Your task to perform on an android device: When is my next meeting? Image 0: 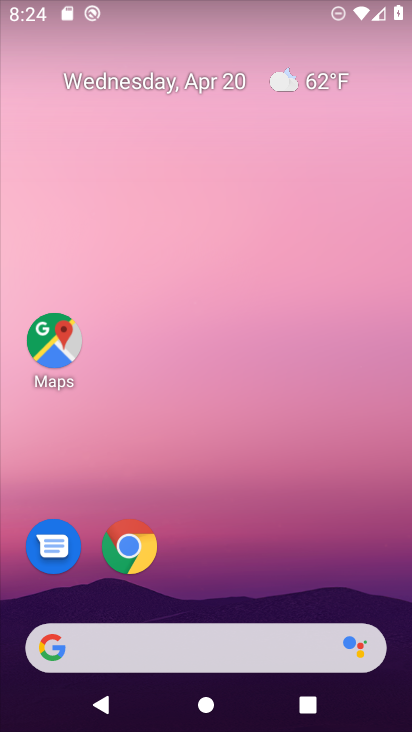
Step 0: drag from (264, 547) to (303, 141)
Your task to perform on an android device: When is my next meeting? Image 1: 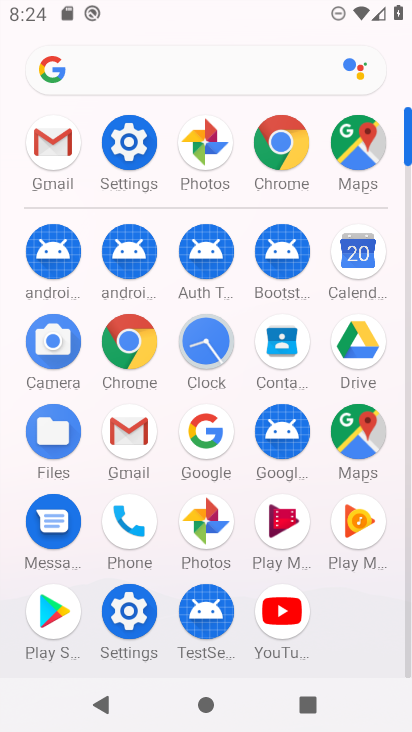
Step 1: click (356, 247)
Your task to perform on an android device: When is my next meeting? Image 2: 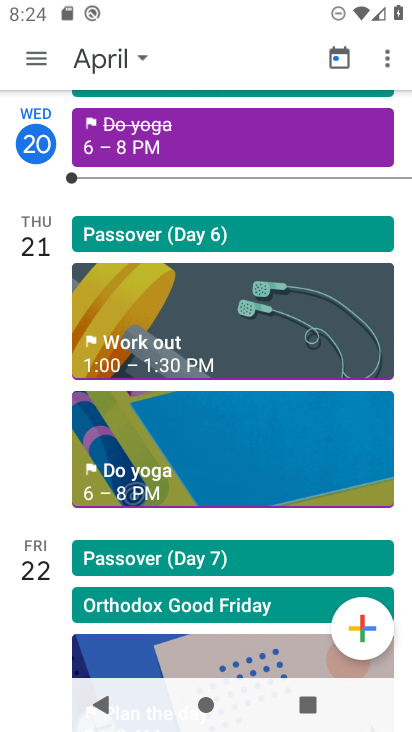
Step 2: click (235, 332)
Your task to perform on an android device: When is my next meeting? Image 3: 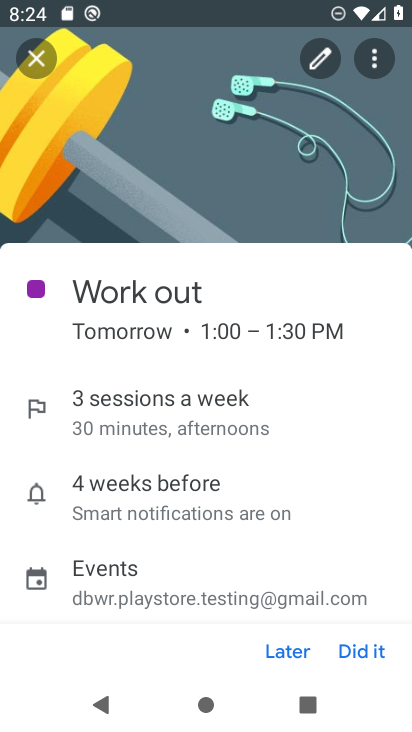
Step 3: task complete